Your task to perform on an android device: Add "razer blackwidow" to the cart on walmart Image 0: 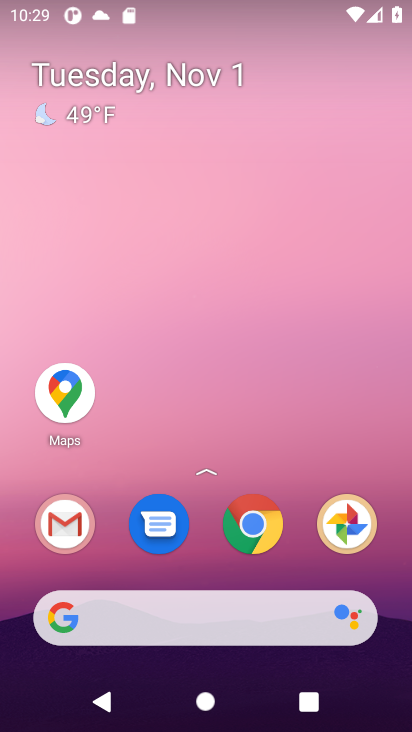
Step 0: press home button
Your task to perform on an android device: Add "razer blackwidow" to the cart on walmart Image 1: 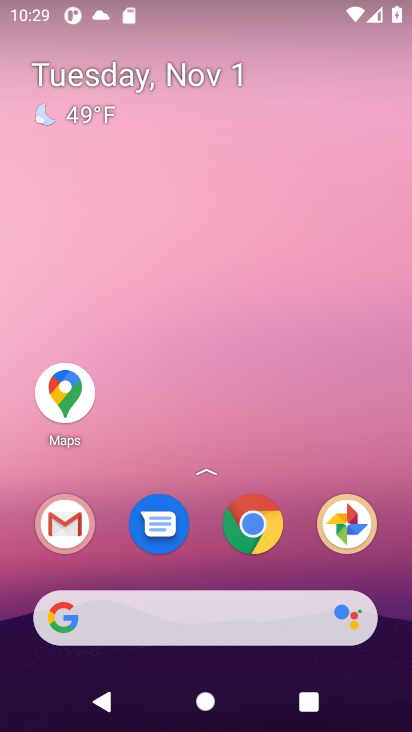
Step 1: click (91, 613)
Your task to perform on an android device: Add "razer blackwidow" to the cart on walmart Image 2: 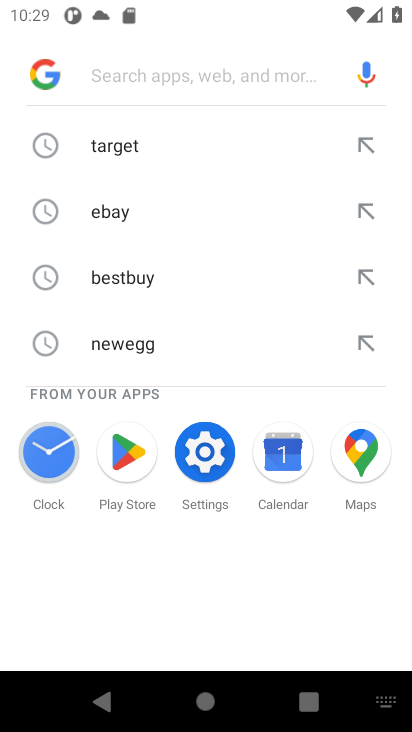
Step 2: type "walmart"
Your task to perform on an android device: Add "razer blackwidow" to the cart on walmart Image 3: 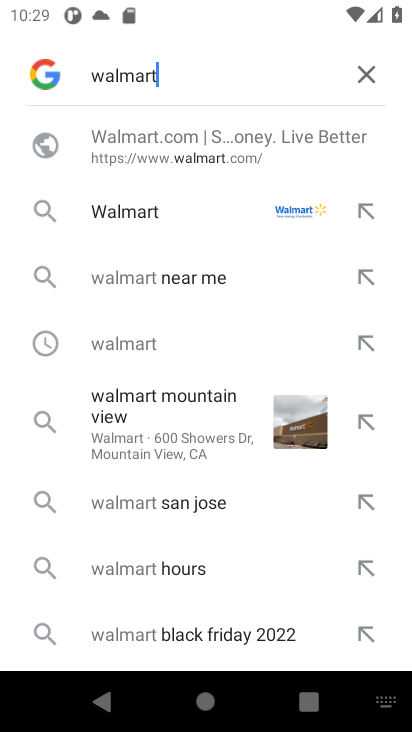
Step 3: press enter
Your task to perform on an android device: Add "razer blackwidow" to the cart on walmart Image 4: 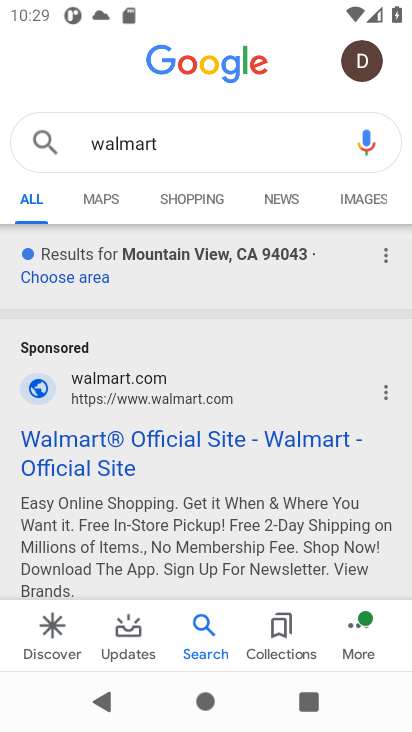
Step 4: click (127, 443)
Your task to perform on an android device: Add "razer blackwidow" to the cart on walmart Image 5: 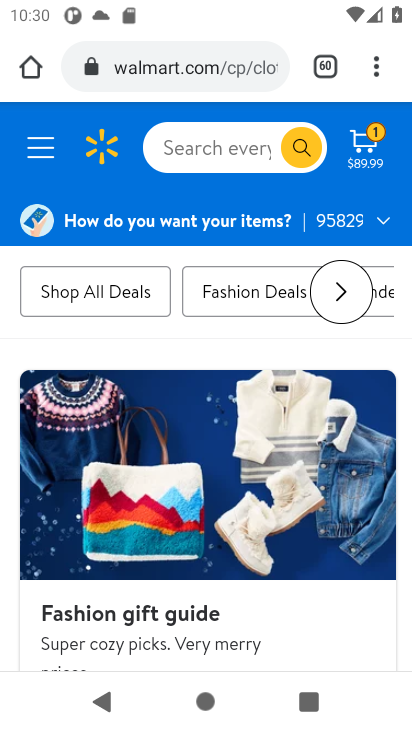
Step 5: click (170, 143)
Your task to perform on an android device: Add "razer blackwidow" to the cart on walmart Image 6: 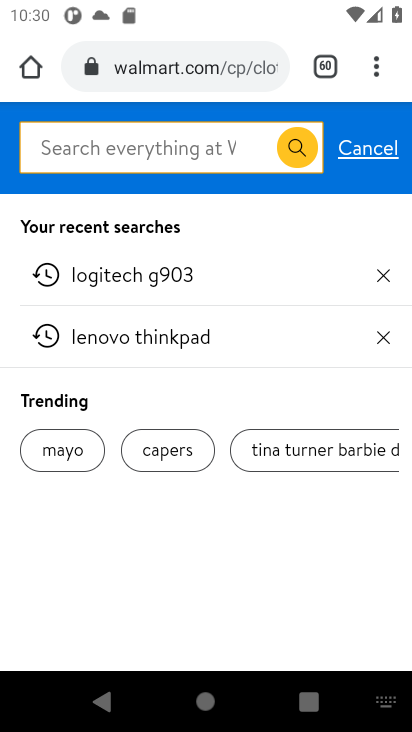
Step 6: press enter
Your task to perform on an android device: Add "razer blackwidow" to the cart on walmart Image 7: 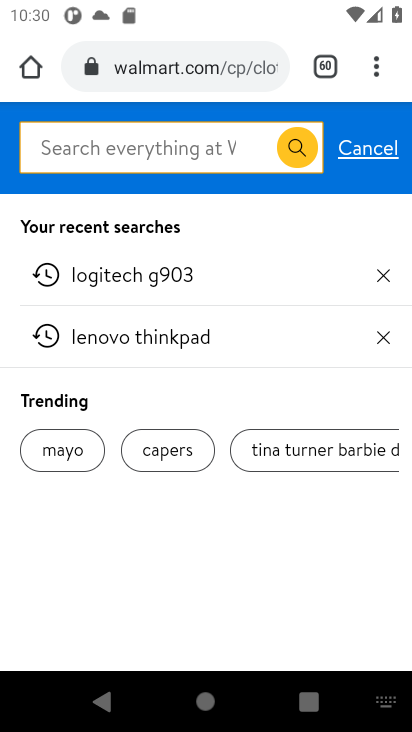
Step 7: type "razer blackwidow"
Your task to perform on an android device: Add "razer blackwidow" to the cart on walmart Image 8: 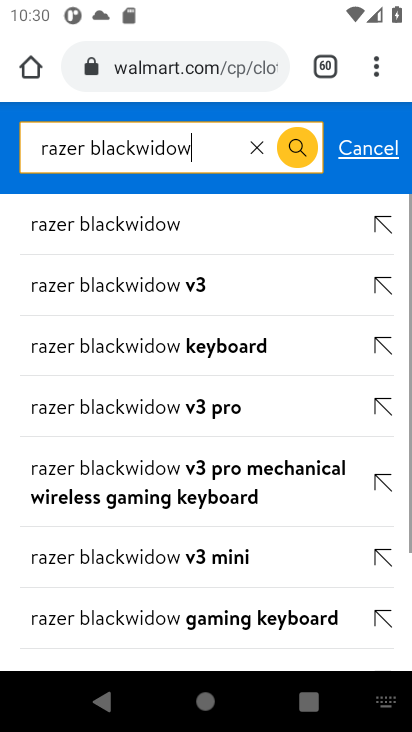
Step 8: press enter
Your task to perform on an android device: Add "razer blackwidow" to the cart on walmart Image 9: 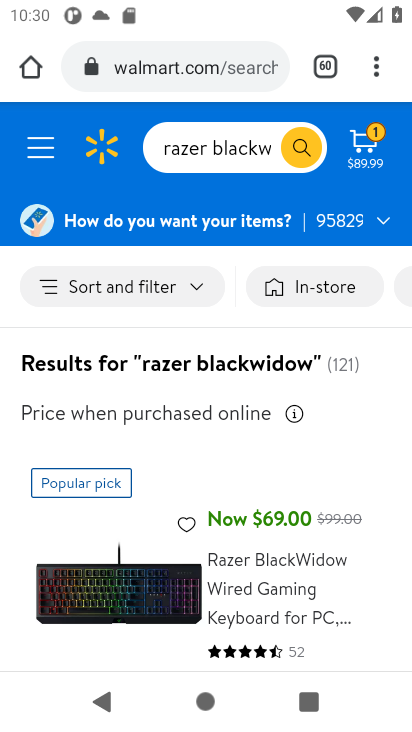
Step 9: drag from (256, 596) to (233, 324)
Your task to perform on an android device: Add "razer blackwidow" to the cart on walmart Image 10: 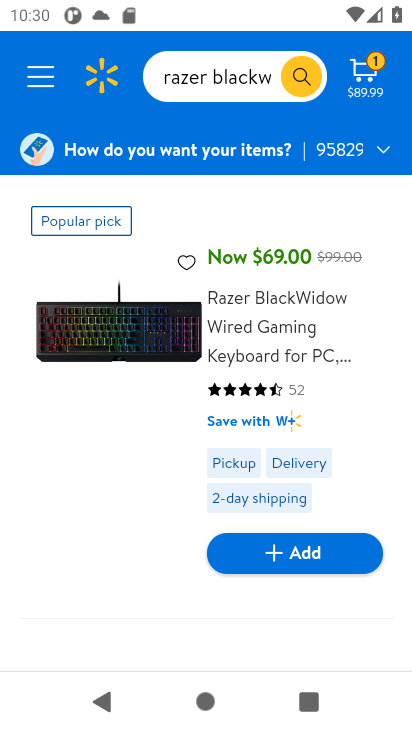
Step 10: click (287, 550)
Your task to perform on an android device: Add "razer blackwidow" to the cart on walmart Image 11: 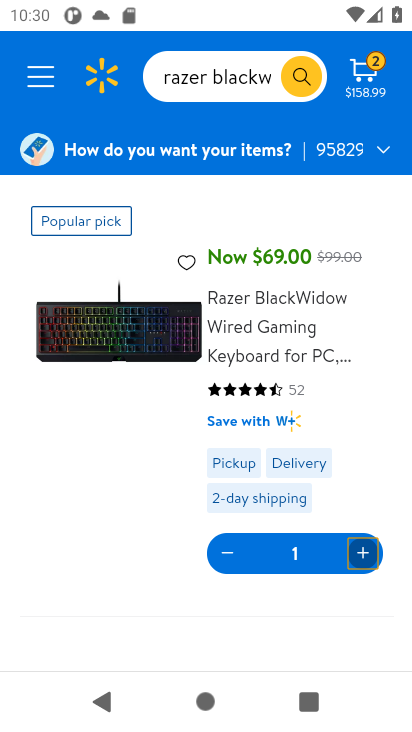
Step 11: task complete